Your task to perform on an android device: change the clock display to analog Image 0: 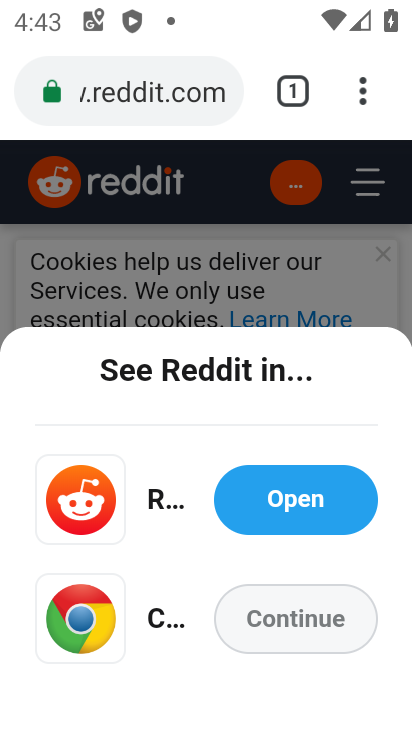
Step 0: press back button
Your task to perform on an android device: change the clock display to analog Image 1: 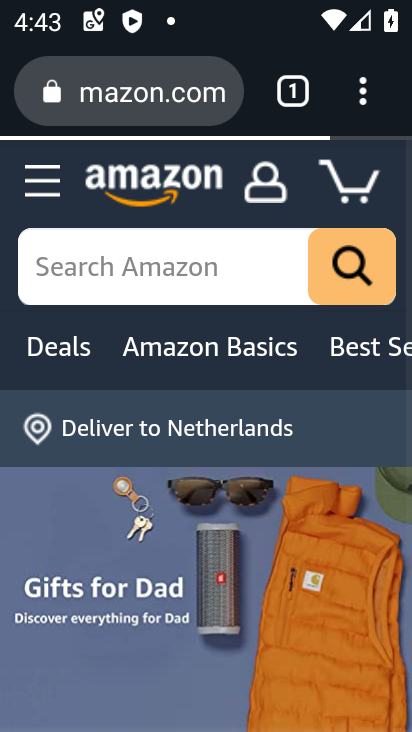
Step 1: press home button
Your task to perform on an android device: change the clock display to analog Image 2: 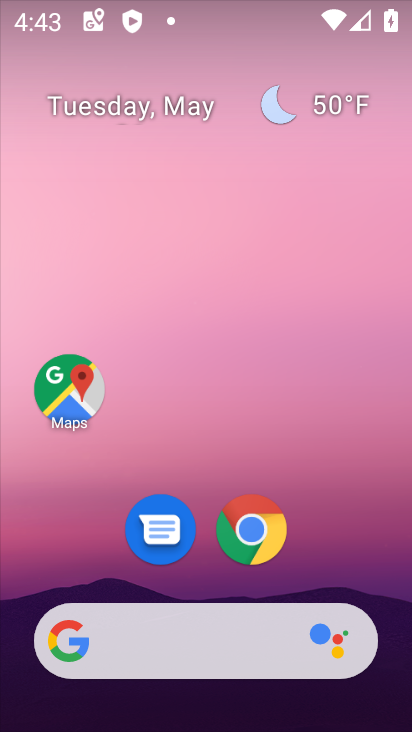
Step 2: drag from (349, 564) to (192, 40)
Your task to perform on an android device: change the clock display to analog Image 3: 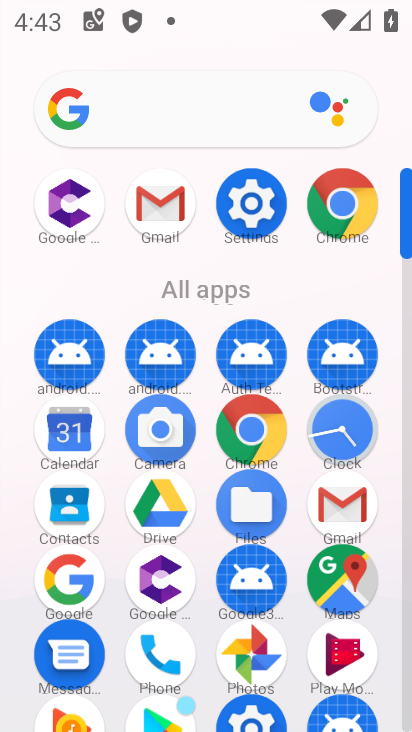
Step 3: click (341, 424)
Your task to perform on an android device: change the clock display to analog Image 4: 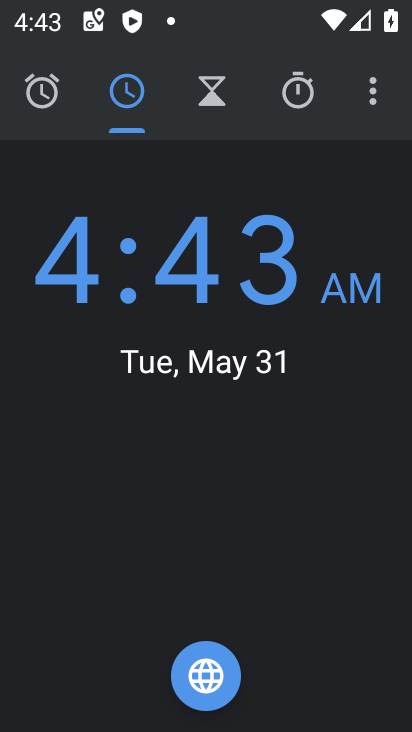
Step 4: click (372, 97)
Your task to perform on an android device: change the clock display to analog Image 5: 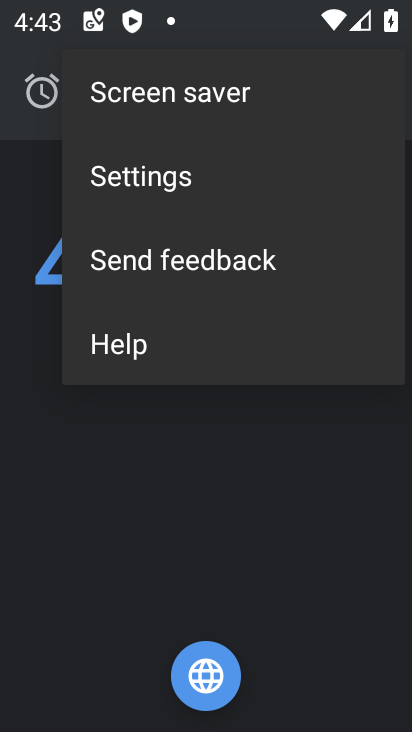
Step 5: click (208, 171)
Your task to perform on an android device: change the clock display to analog Image 6: 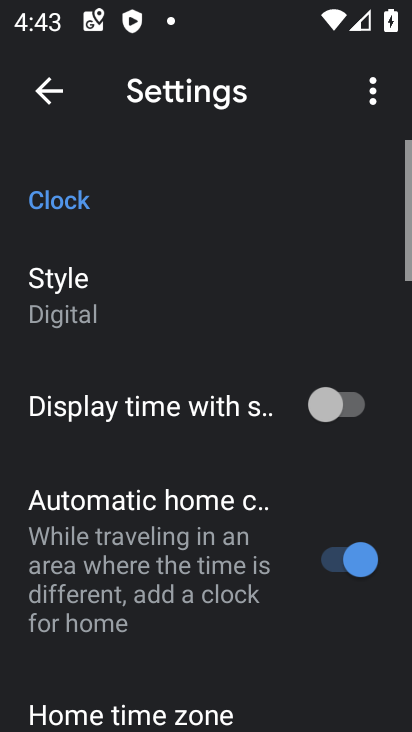
Step 6: click (104, 292)
Your task to perform on an android device: change the clock display to analog Image 7: 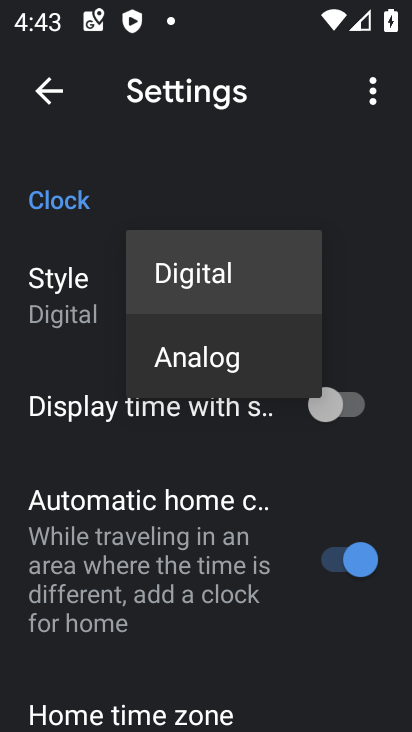
Step 7: click (179, 359)
Your task to perform on an android device: change the clock display to analog Image 8: 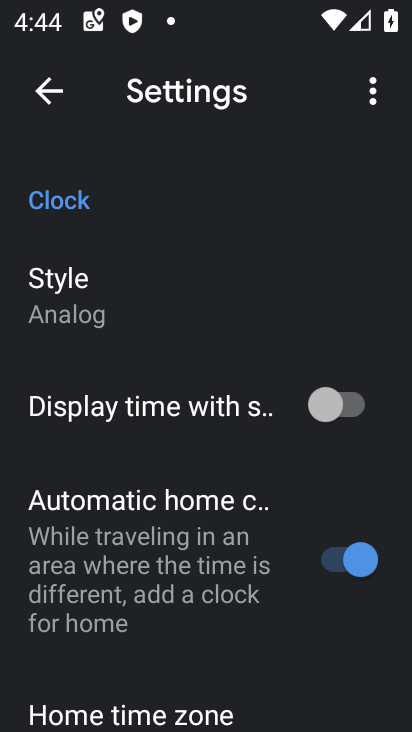
Step 8: task complete